Your task to perform on an android device: change notification settings in the gmail app Image 0: 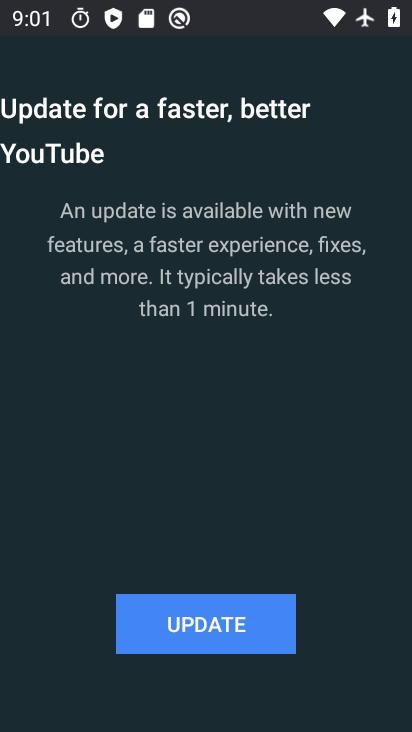
Step 0: press back button
Your task to perform on an android device: change notification settings in the gmail app Image 1: 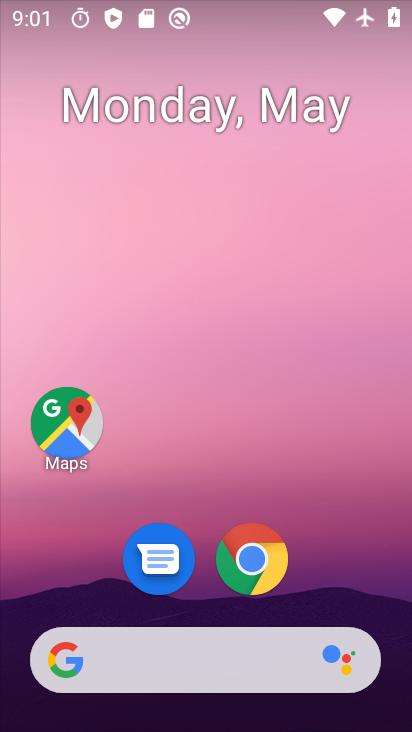
Step 1: drag from (323, 600) to (327, 158)
Your task to perform on an android device: change notification settings in the gmail app Image 2: 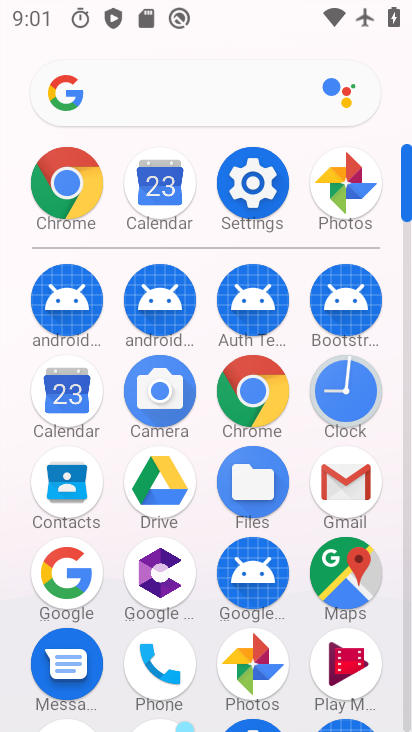
Step 2: click (342, 486)
Your task to perform on an android device: change notification settings in the gmail app Image 3: 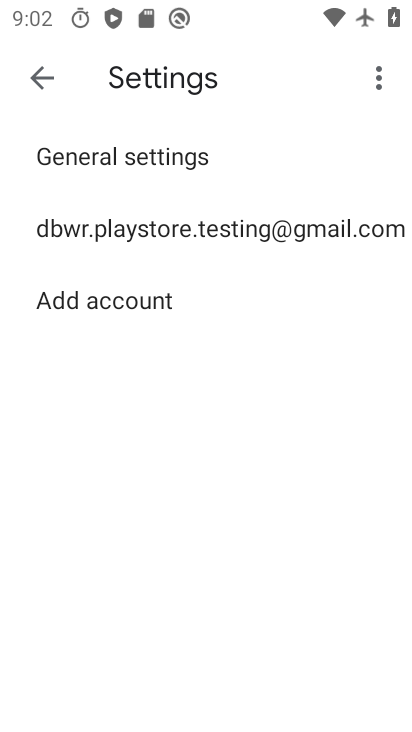
Step 3: click (176, 218)
Your task to perform on an android device: change notification settings in the gmail app Image 4: 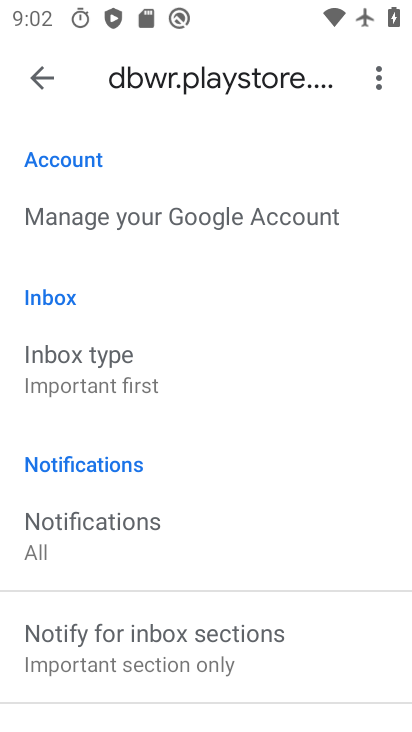
Step 4: drag from (90, 580) to (169, 294)
Your task to perform on an android device: change notification settings in the gmail app Image 5: 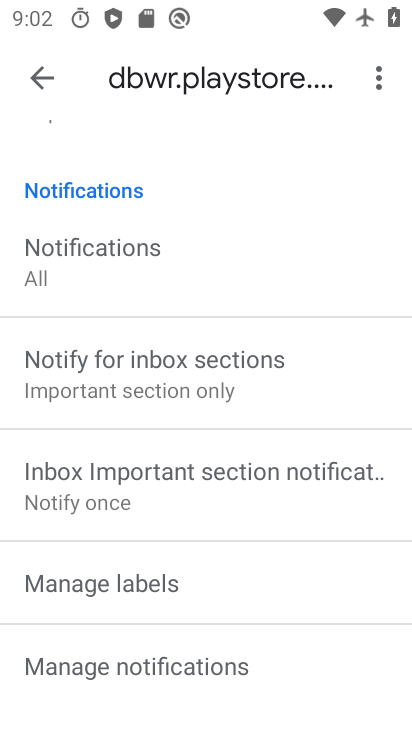
Step 5: click (71, 666)
Your task to perform on an android device: change notification settings in the gmail app Image 6: 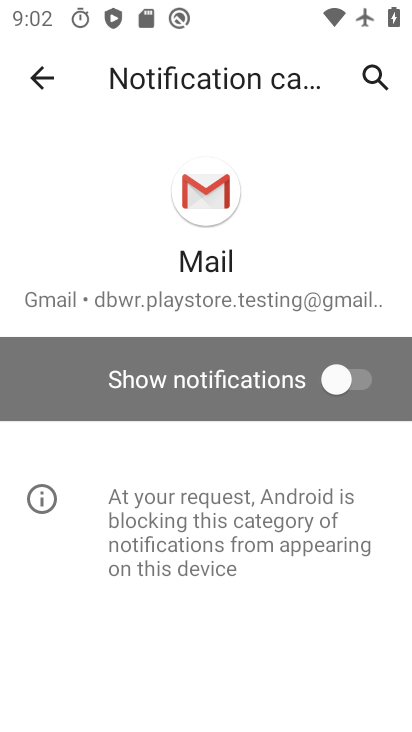
Step 6: click (341, 369)
Your task to perform on an android device: change notification settings in the gmail app Image 7: 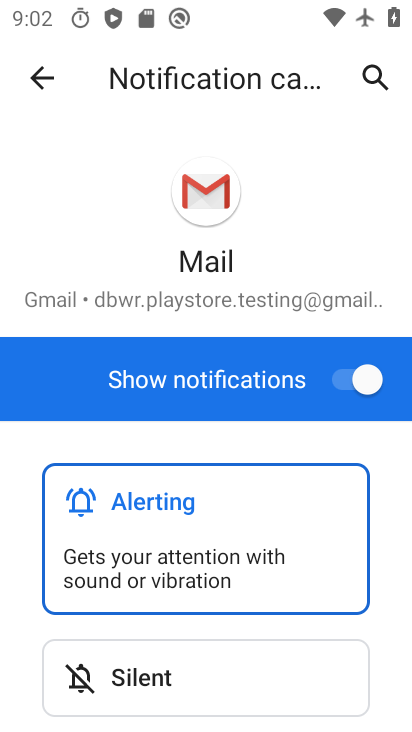
Step 7: task complete